Your task to perform on an android device: turn off sleep mode Image 0: 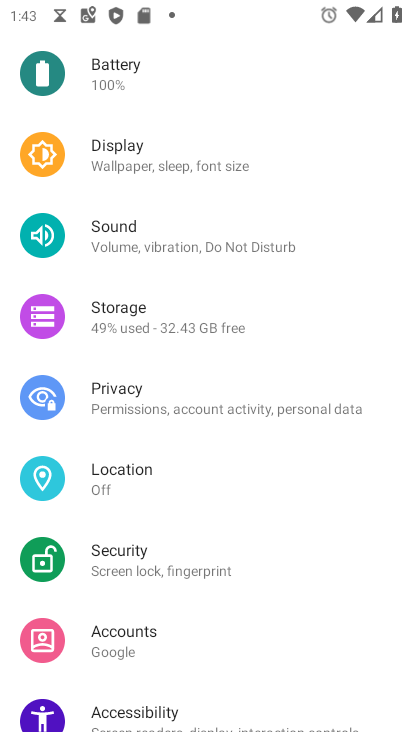
Step 0: press home button
Your task to perform on an android device: turn off sleep mode Image 1: 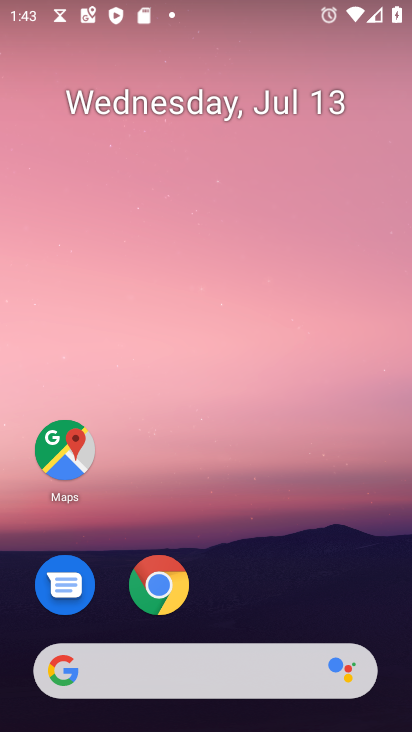
Step 1: drag from (128, 693) to (243, 225)
Your task to perform on an android device: turn off sleep mode Image 2: 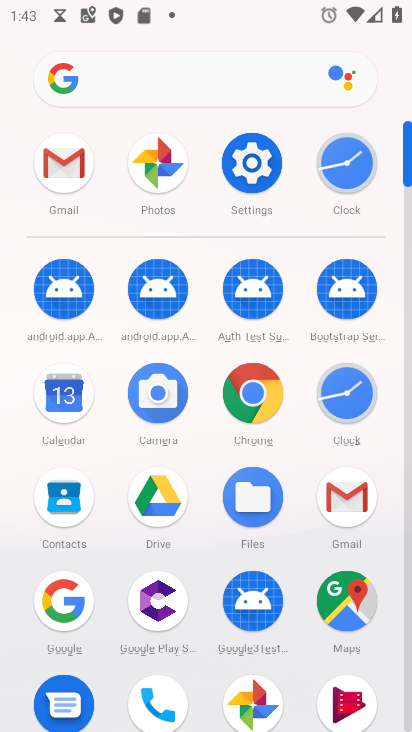
Step 2: click (256, 163)
Your task to perform on an android device: turn off sleep mode Image 3: 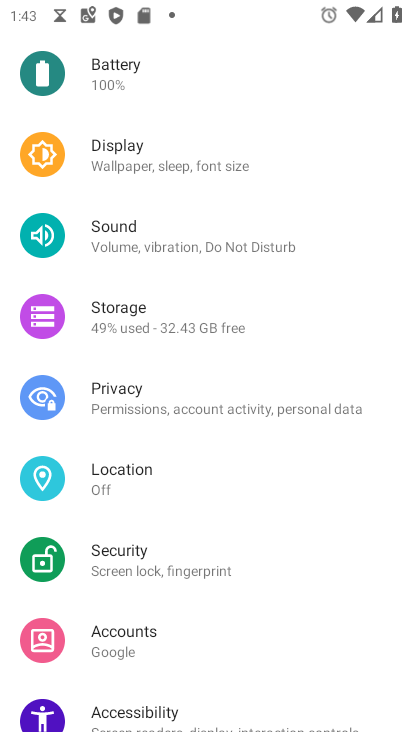
Step 3: click (130, 164)
Your task to perform on an android device: turn off sleep mode Image 4: 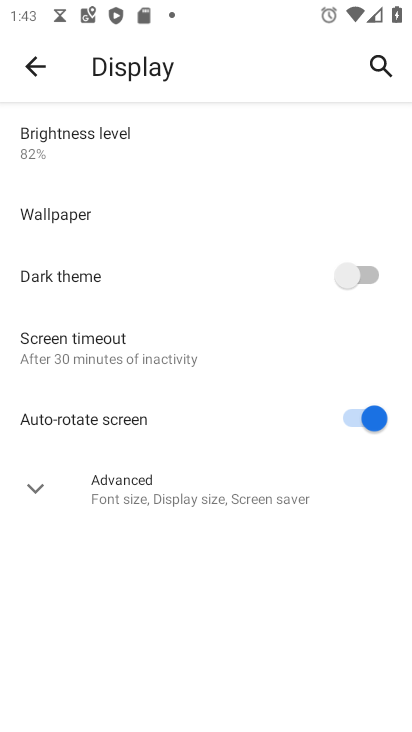
Step 4: click (65, 490)
Your task to perform on an android device: turn off sleep mode Image 5: 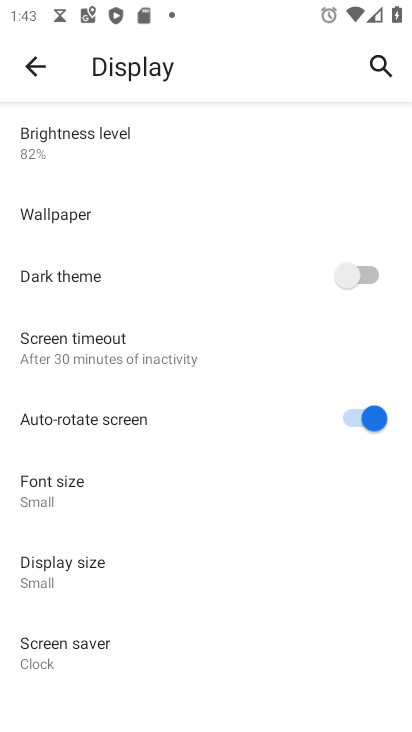
Step 5: task complete